Your task to perform on an android device: Open ESPN.com Image 0: 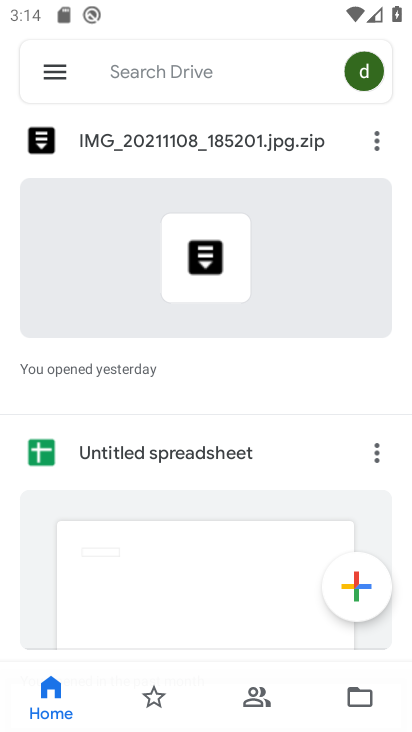
Step 0: press home button
Your task to perform on an android device: Open ESPN.com Image 1: 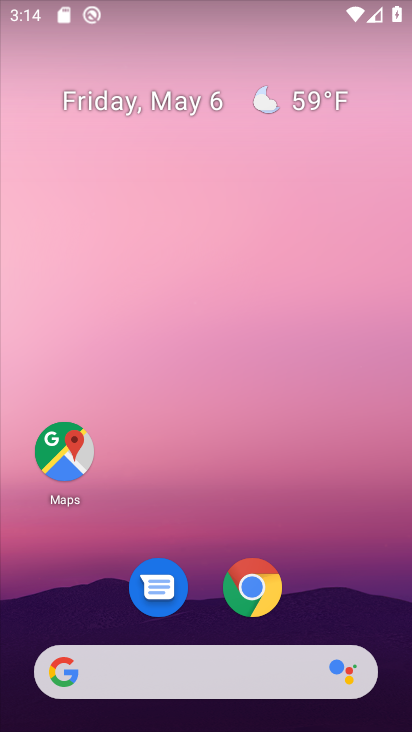
Step 1: click (235, 676)
Your task to perform on an android device: Open ESPN.com Image 2: 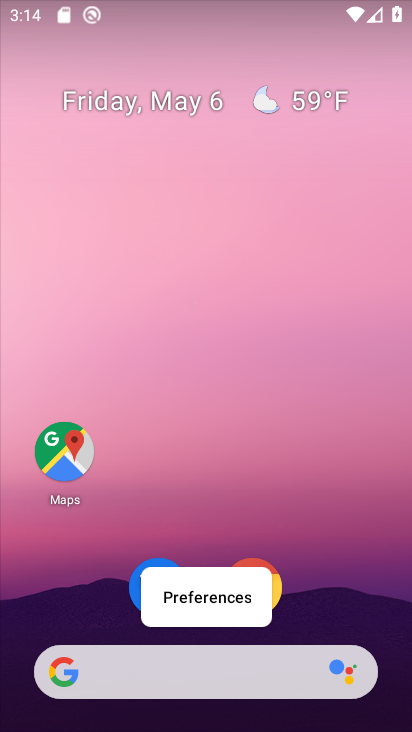
Step 2: click (234, 674)
Your task to perform on an android device: Open ESPN.com Image 3: 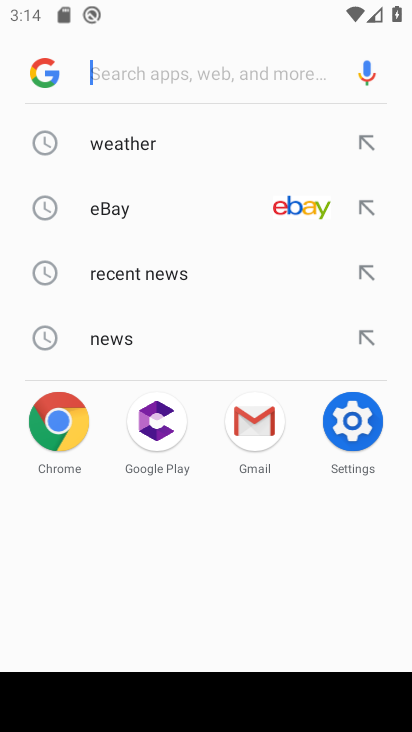
Step 3: type "espn.com"
Your task to perform on an android device: Open ESPN.com Image 4: 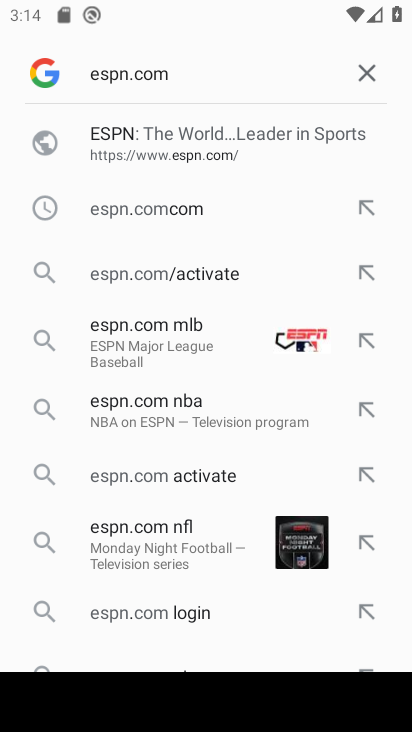
Step 4: click (179, 142)
Your task to perform on an android device: Open ESPN.com Image 5: 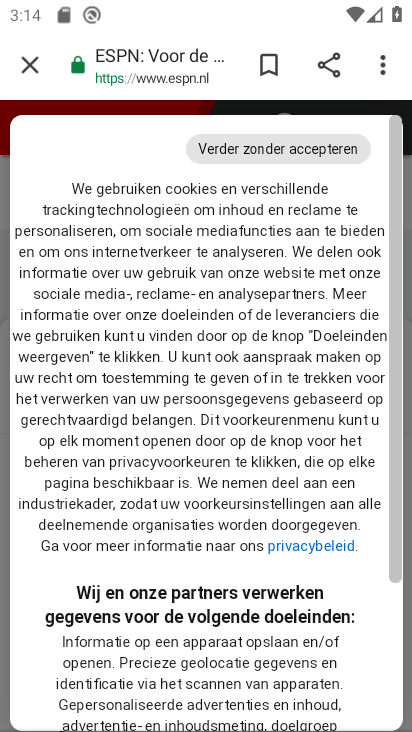
Step 5: task complete